Your task to perform on an android device: Turn off the flashlight Image 0: 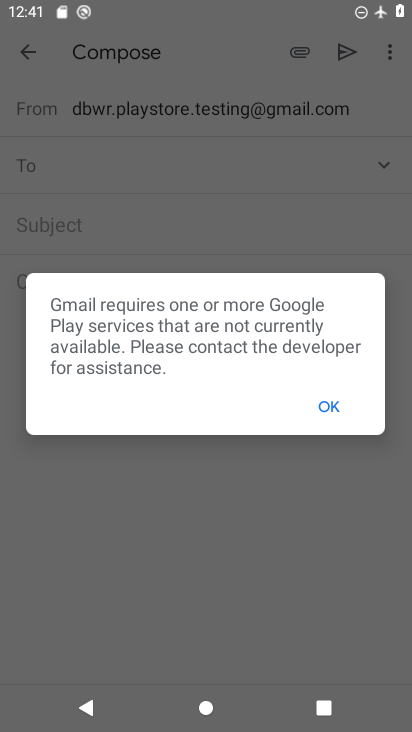
Step 0: press home button
Your task to perform on an android device: Turn off the flashlight Image 1: 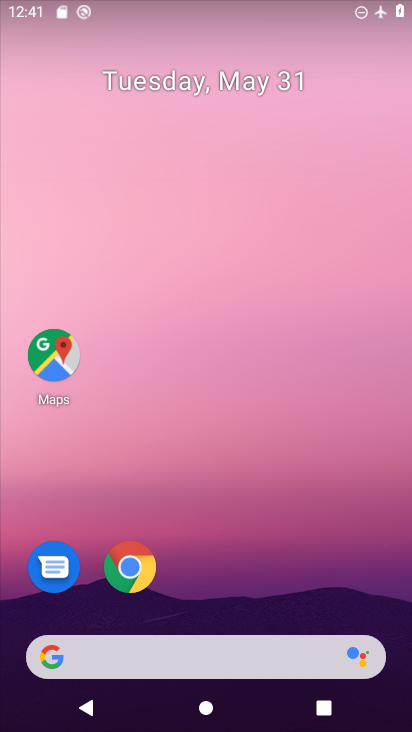
Step 1: drag from (215, 577) to (238, 158)
Your task to perform on an android device: Turn off the flashlight Image 2: 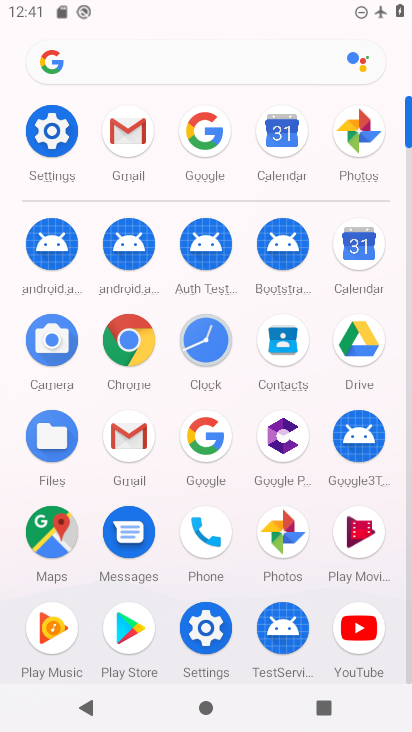
Step 2: click (56, 127)
Your task to perform on an android device: Turn off the flashlight Image 3: 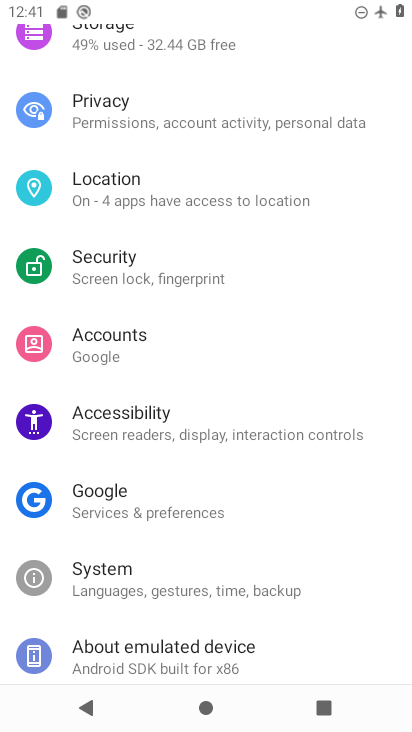
Step 3: task complete